Your task to perform on an android device: Search for seafood restaurants on Google Maps Image 0: 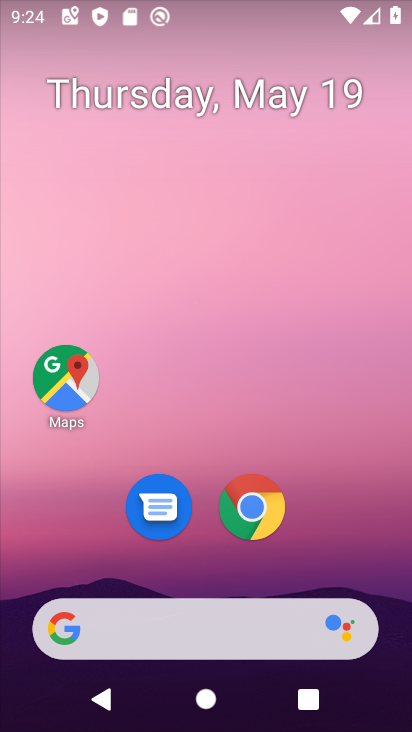
Step 0: click (63, 379)
Your task to perform on an android device: Search for seafood restaurants on Google Maps Image 1: 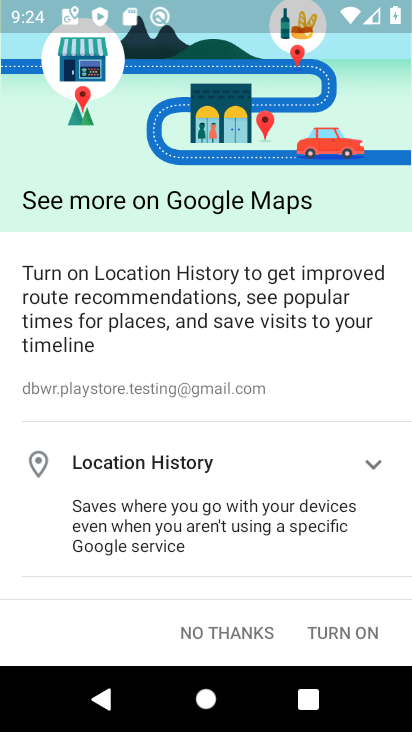
Step 1: click (224, 623)
Your task to perform on an android device: Search for seafood restaurants on Google Maps Image 2: 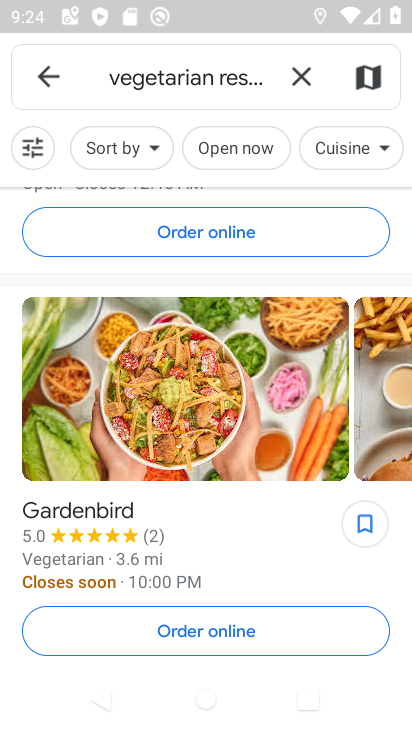
Step 2: click (303, 71)
Your task to perform on an android device: Search for seafood restaurants on Google Maps Image 3: 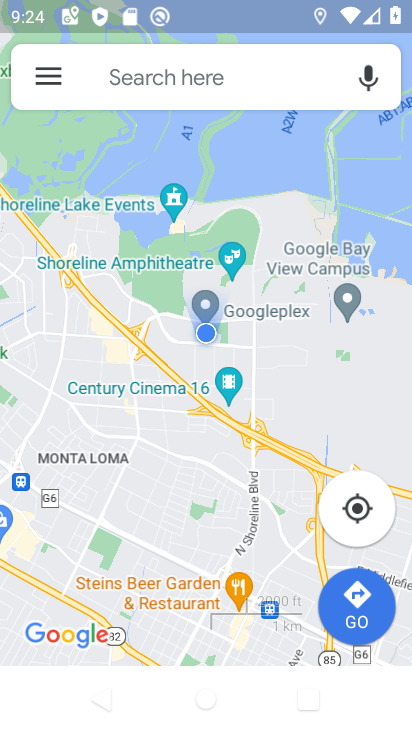
Step 3: click (138, 68)
Your task to perform on an android device: Search for seafood restaurants on Google Maps Image 4: 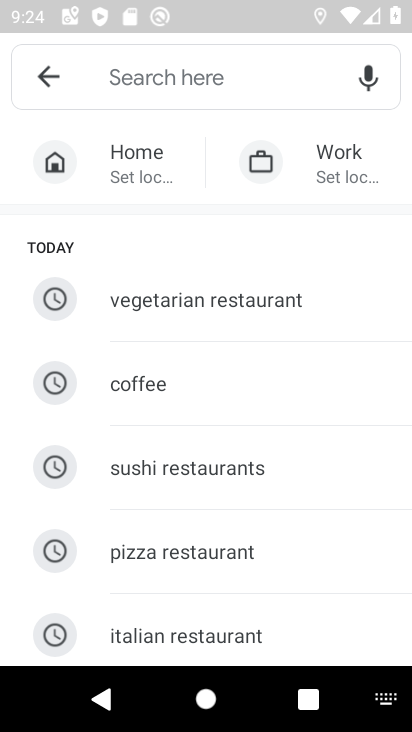
Step 4: type "seafood restaurants"
Your task to perform on an android device: Search for seafood restaurants on Google Maps Image 5: 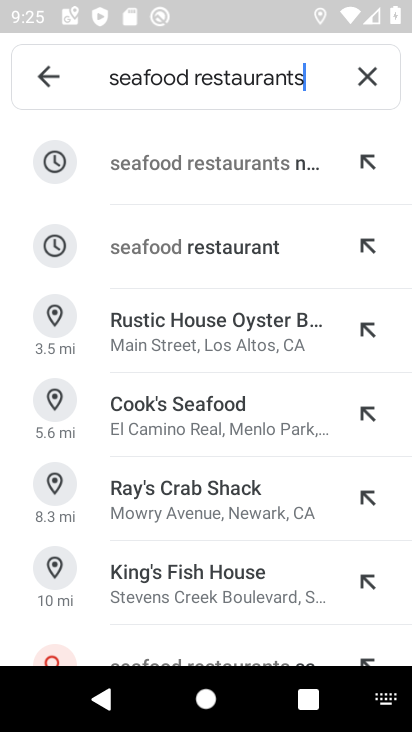
Step 5: click (151, 161)
Your task to perform on an android device: Search for seafood restaurants on Google Maps Image 6: 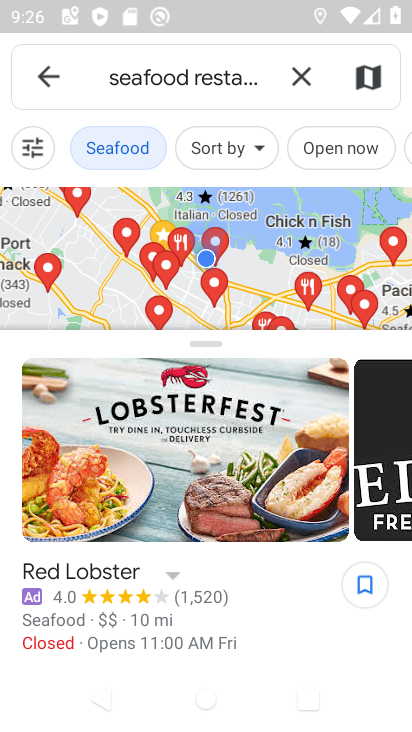
Step 6: task complete